Your task to perform on an android device: toggle data saver in the chrome app Image 0: 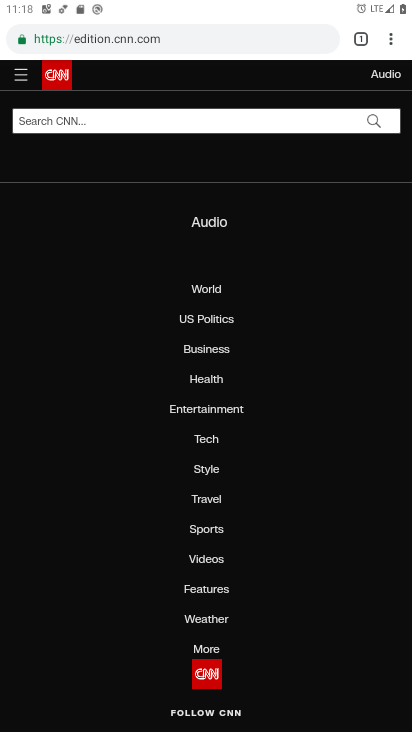
Step 0: press home button
Your task to perform on an android device: toggle data saver in the chrome app Image 1: 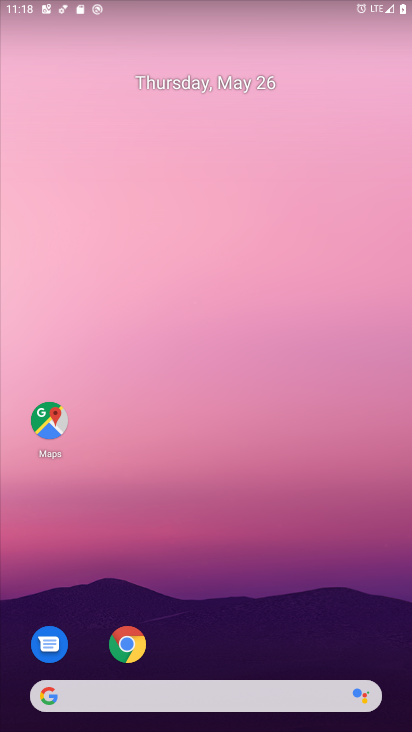
Step 1: drag from (330, 647) to (375, 159)
Your task to perform on an android device: toggle data saver in the chrome app Image 2: 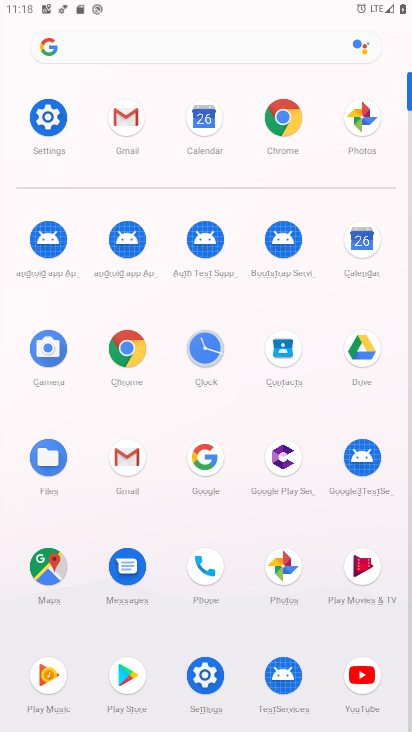
Step 2: click (131, 355)
Your task to perform on an android device: toggle data saver in the chrome app Image 3: 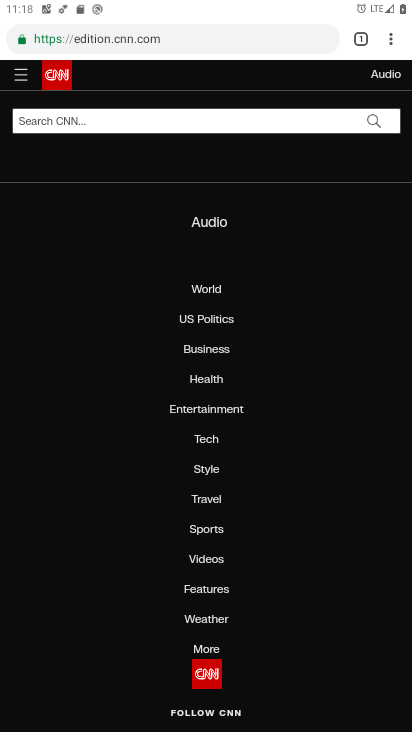
Step 3: click (395, 42)
Your task to perform on an android device: toggle data saver in the chrome app Image 4: 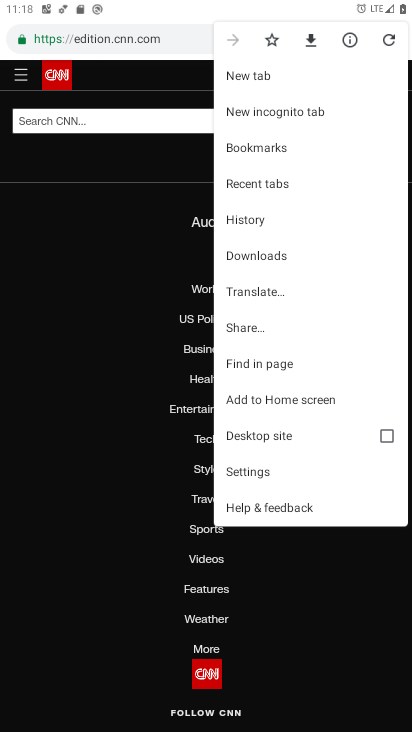
Step 4: click (257, 473)
Your task to perform on an android device: toggle data saver in the chrome app Image 5: 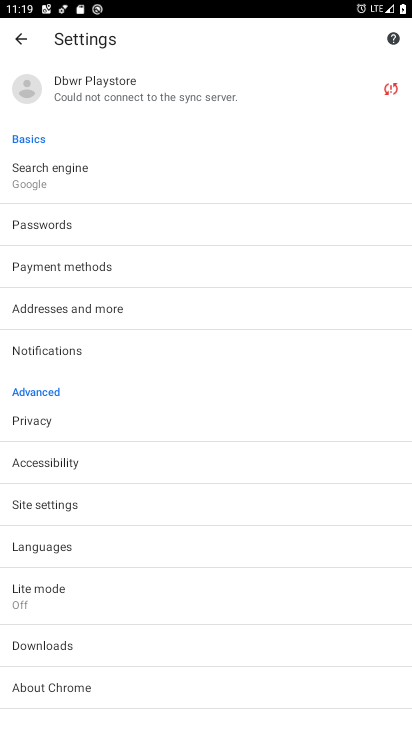
Step 5: click (186, 594)
Your task to perform on an android device: toggle data saver in the chrome app Image 6: 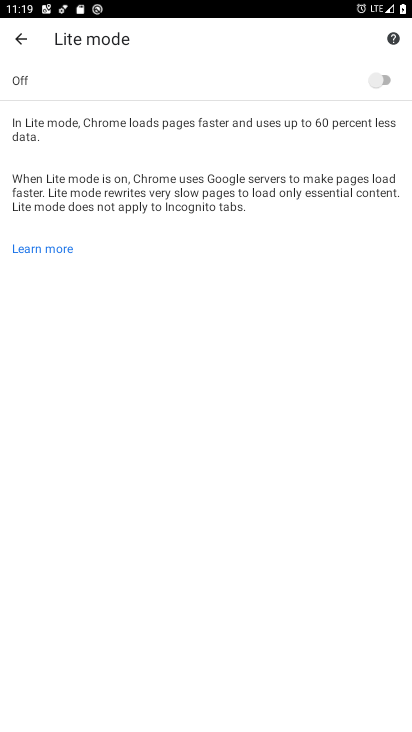
Step 6: click (377, 85)
Your task to perform on an android device: toggle data saver in the chrome app Image 7: 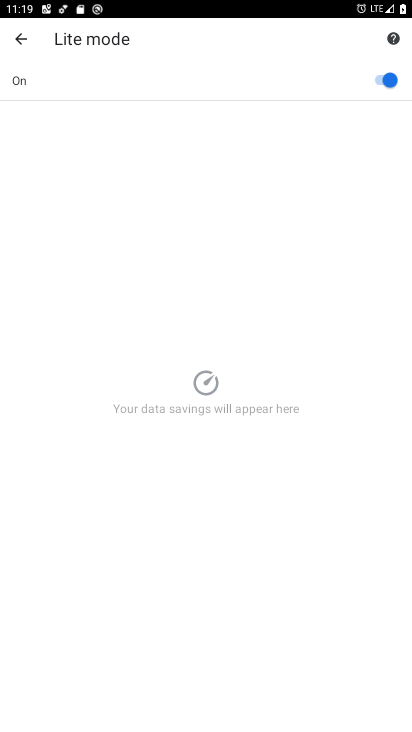
Step 7: task complete